Your task to perform on an android device: turn pop-ups off in chrome Image 0: 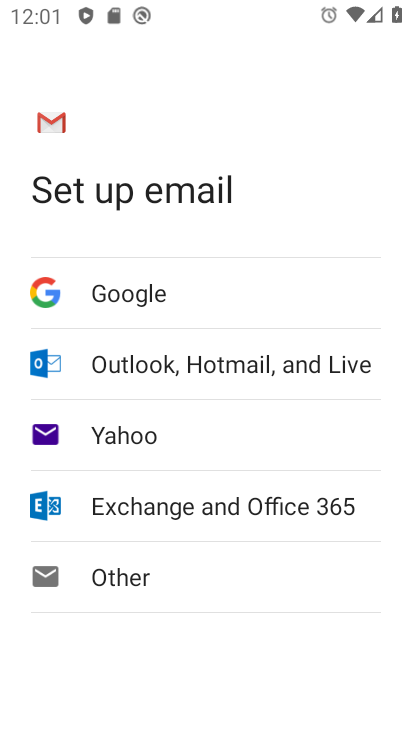
Step 0: press home button
Your task to perform on an android device: turn pop-ups off in chrome Image 1: 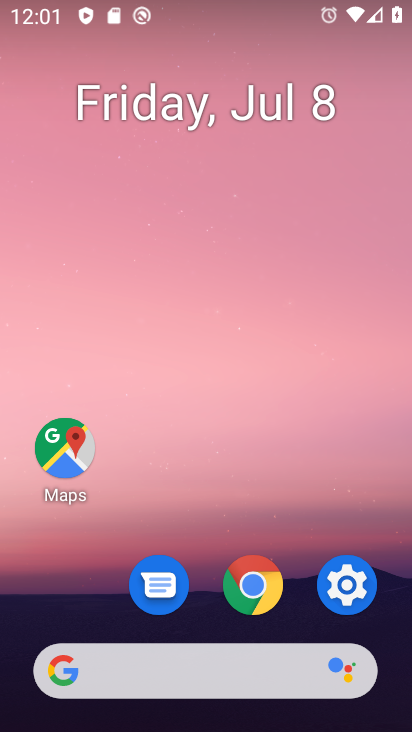
Step 1: click (256, 587)
Your task to perform on an android device: turn pop-ups off in chrome Image 2: 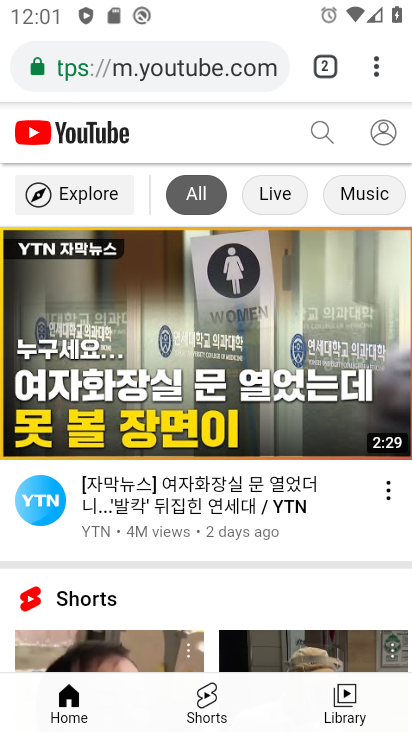
Step 2: click (378, 68)
Your task to perform on an android device: turn pop-ups off in chrome Image 3: 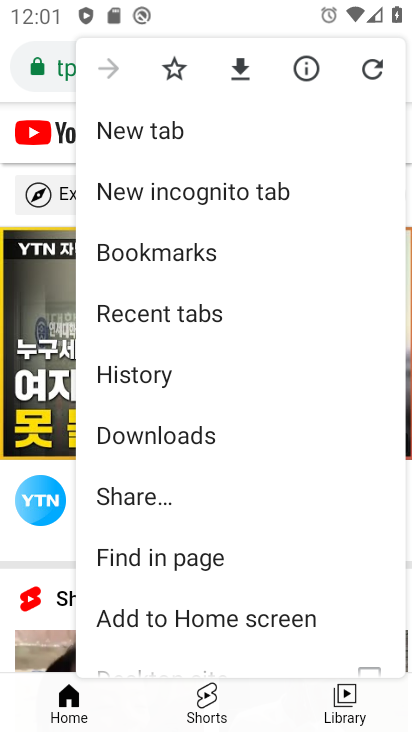
Step 3: drag from (171, 595) to (211, 427)
Your task to perform on an android device: turn pop-ups off in chrome Image 4: 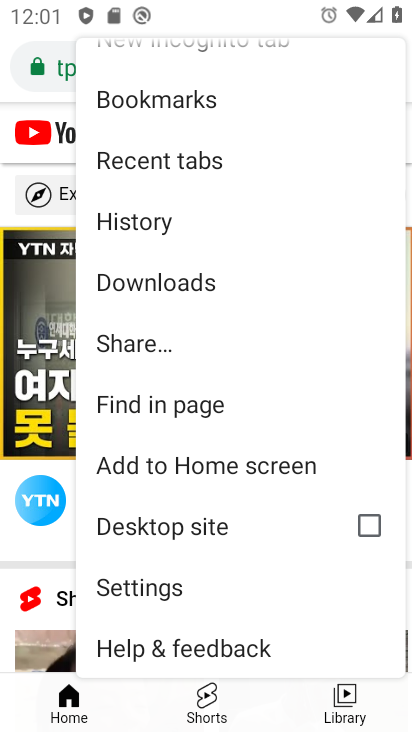
Step 4: click (156, 583)
Your task to perform on an android device: turn pop-ups off in chrome Image 5: 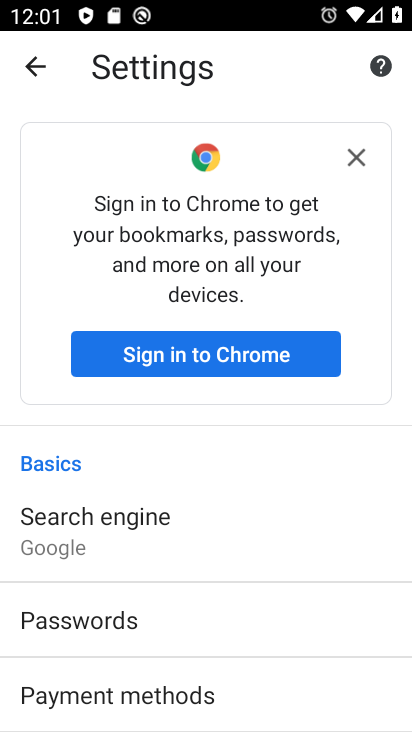
Step 5: drag from (136, 640) to (273, 291)
Your task to perform on an android device: turn pop-ups off in chrome Image 6: 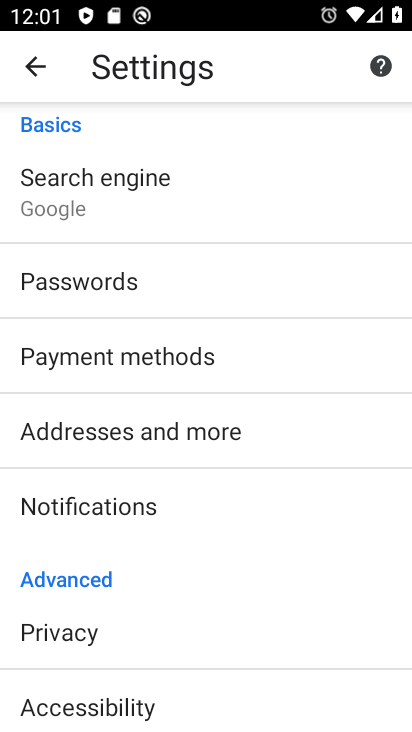
Step 6: drag from (73, 647) to (162, 442)
Your task to perform on an android device: turn pop-ups off in chrome Image 7: 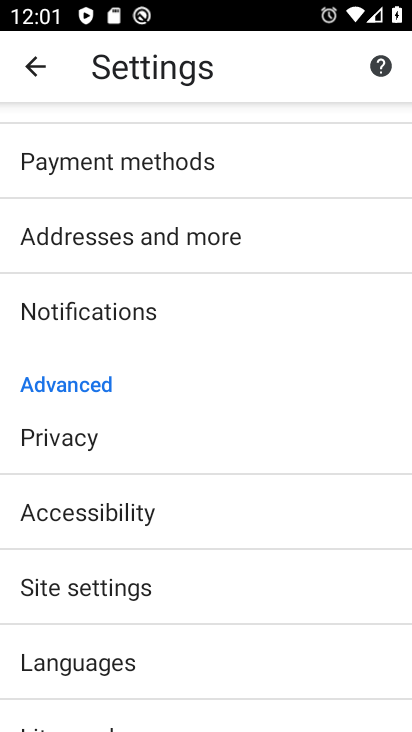
Step 7: click (76, 589)
Your task to perform on an android device: turn pop-ups off in chrome Image 8: 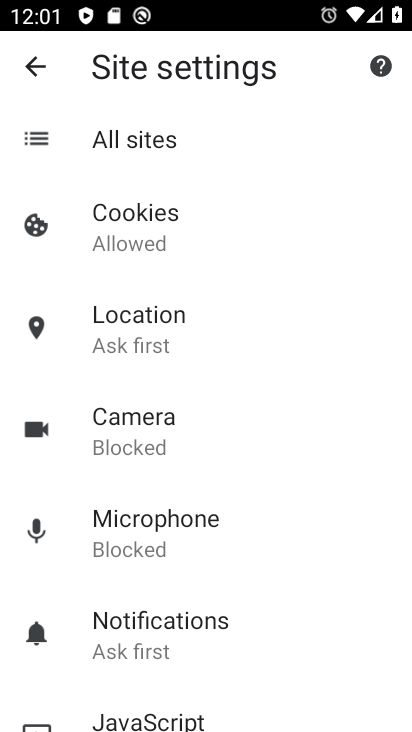
Step 8: drag from (124, 644) to (209, 403)
Your task to perform on an android device: turn pop-ups off in chrome Image 9: 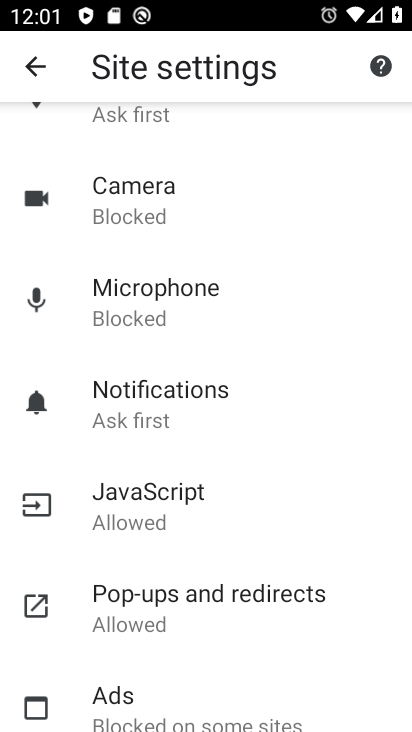
Step 9: click (168, 595)
Your task to perform on an android device: turn pop-ups off in chrome Image 10: 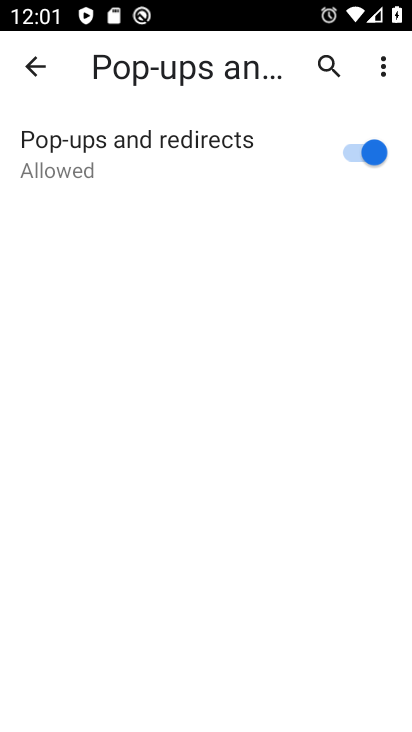
Step 10: click (348, 169)
Your task to perform on an android device: turn pop-ups off in chrome Image 11: 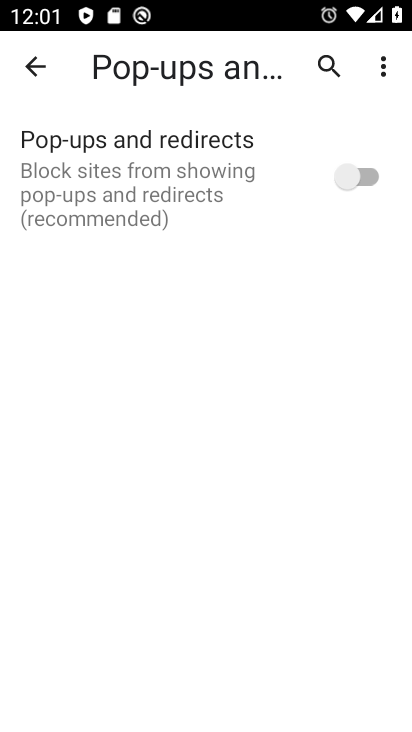
Step 11: task complete